Your task to perform on an android device: visit the assistant section in the google photos Image 0: 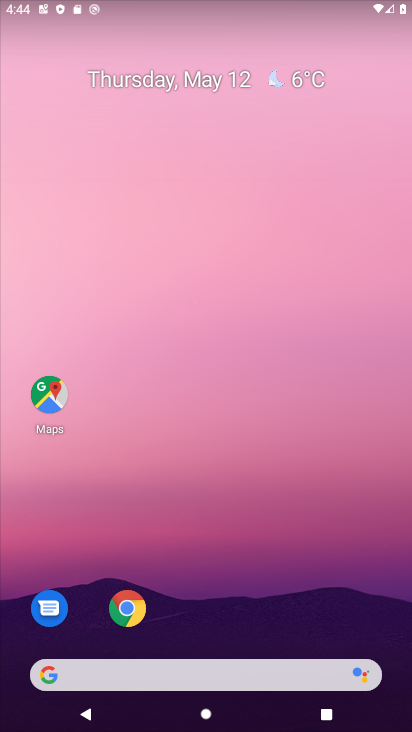
Step 0: drag from (220, 580) to (257, 105)
Your task to perform on an android device: visit the assistant section in the google photos Image 1: 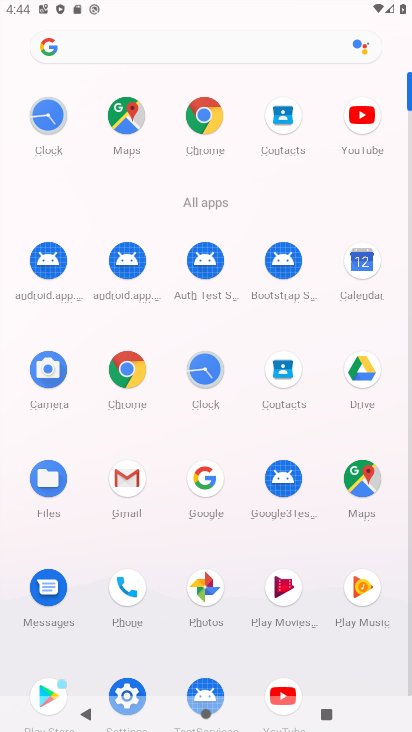
Step 1: click (204, 591)
Your task to perform on an android device: visit the assistant section in the google photos Image 2: 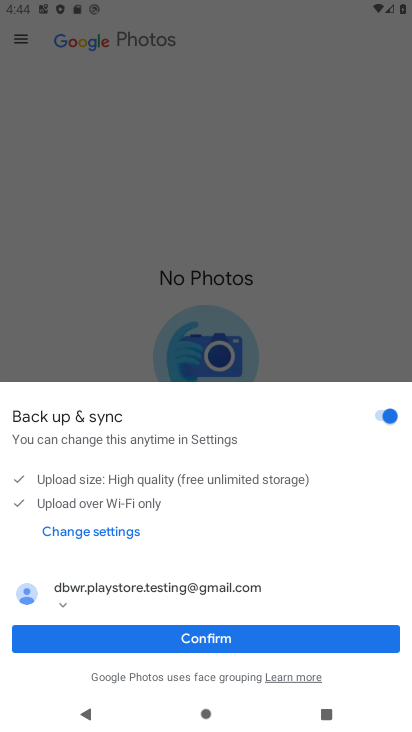
Step 2: click (254, 637)
Your task to perform on an android device: visit the assistant section in the google photos Image 3: 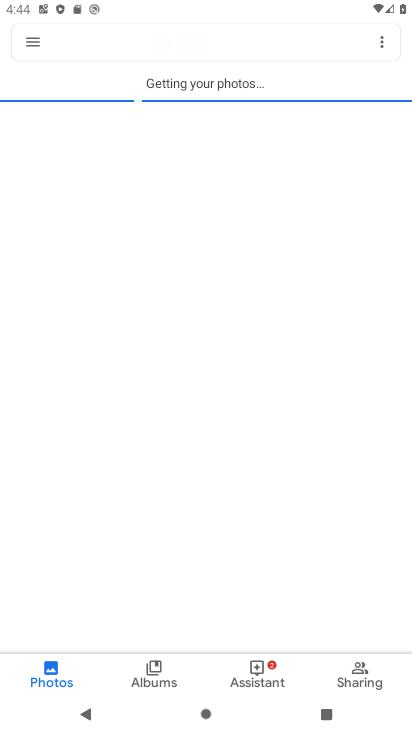
Step 3: click (243, 672)
Your task to perform on an android device: visit the assistant section in the google photos Image 4: 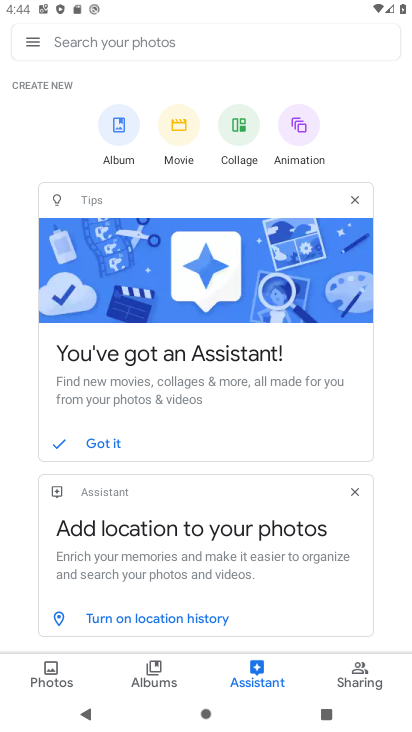
Step 4: task complete